Your task to perform on an android device: uninstall "Calculator" Image 0: 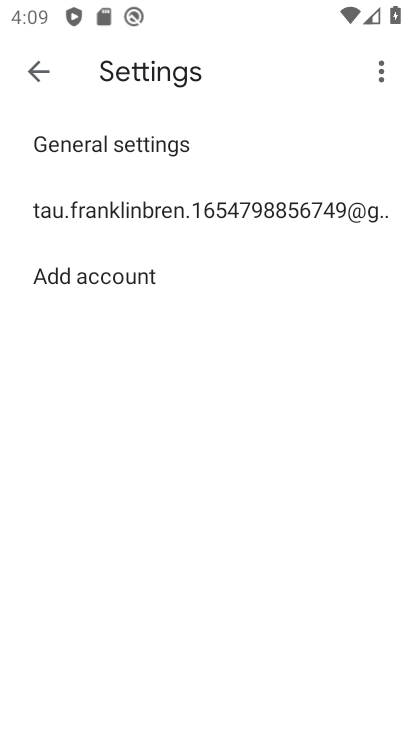
Step 0: press home button
Your task to perform on an android device: uninstall "Calculator" Image 1: 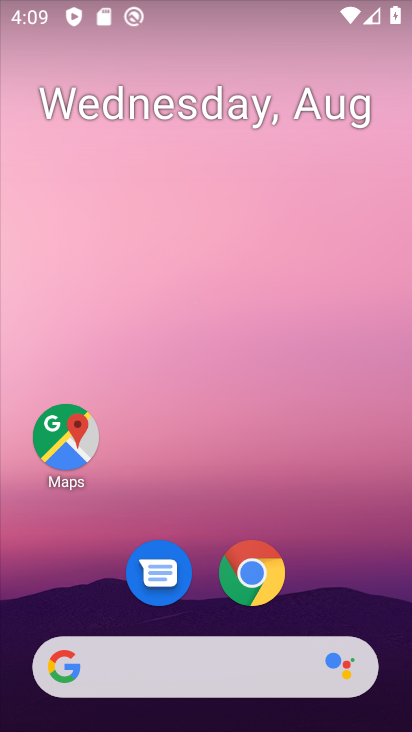
Step 1: drag from (203, 496) to (150, 90)
Your task to perform on an android device: uninstall "Calculator" Image 2: 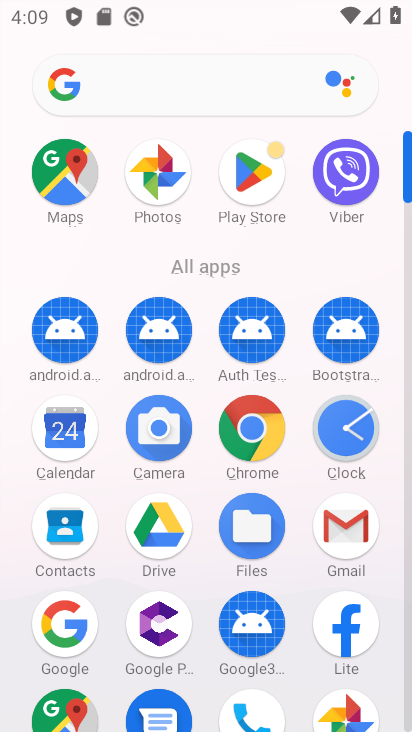
Step 2: click (236, 154)
Your task to perform on an android device: uninstall "Calculator" Image 3: 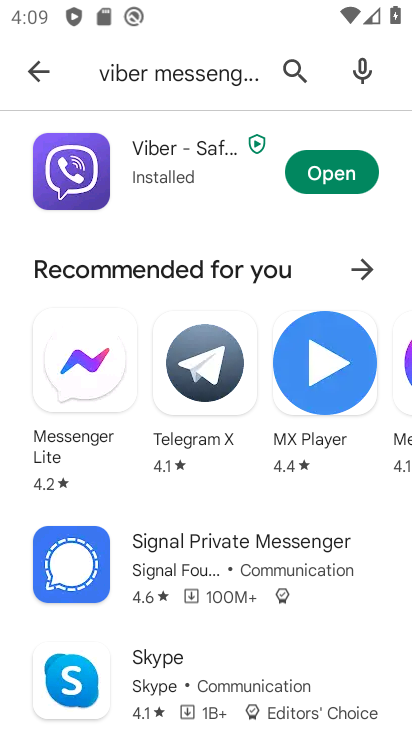
Step 3: click (293, 63)
Your task to perform on an android device: uninstall "Calculator" Image 4: 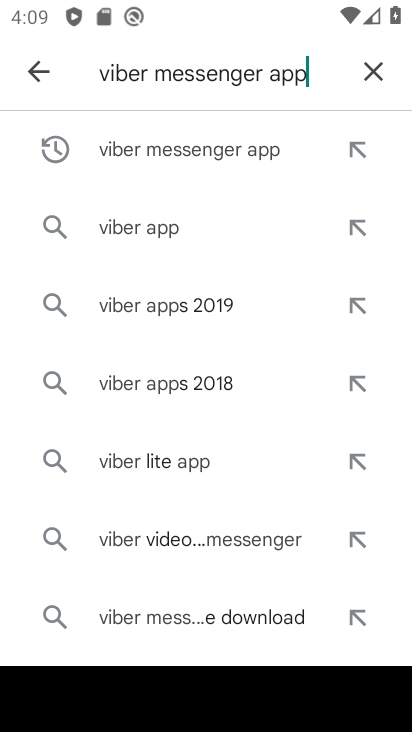
Step 4: click (366, 74)
Your task to perform on an android device: uninstall "Calculator" Image 5: 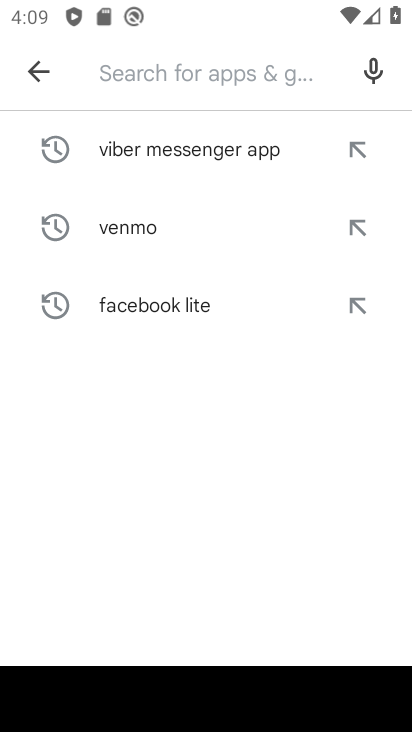
Step 5: type "Calculator"
Your task to perform on an android device: uninstall "Calculator" Image 6: 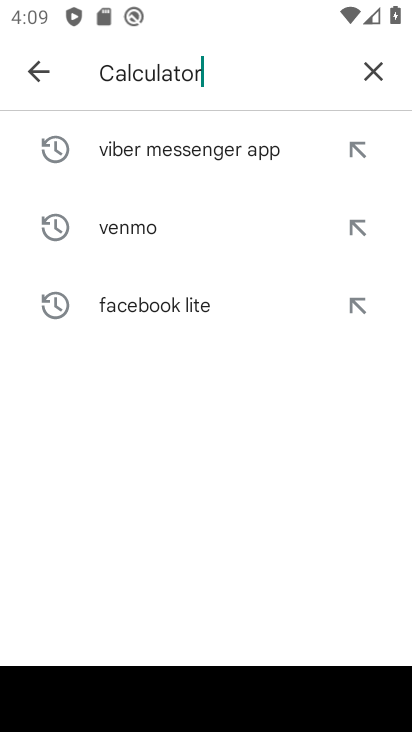
Step 6: type ""
Your task to perform on an android device: uninstall "Calculator" Image 7: 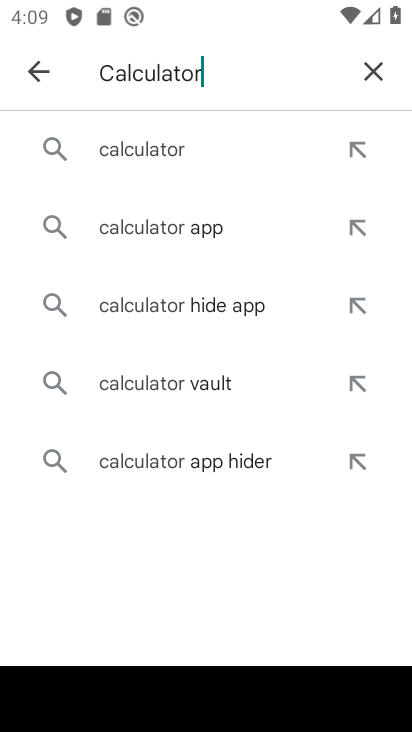
Step 7: click (119, 159)
Your task to perform on an android device: uninstall "Calculator" Image 8: 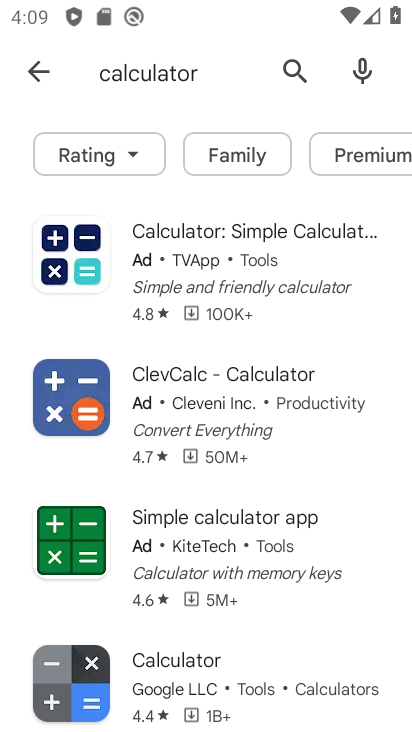
Step 8: click (240, 655)
Your task to perform on an android device: uninstall "Calculator" Image 9: 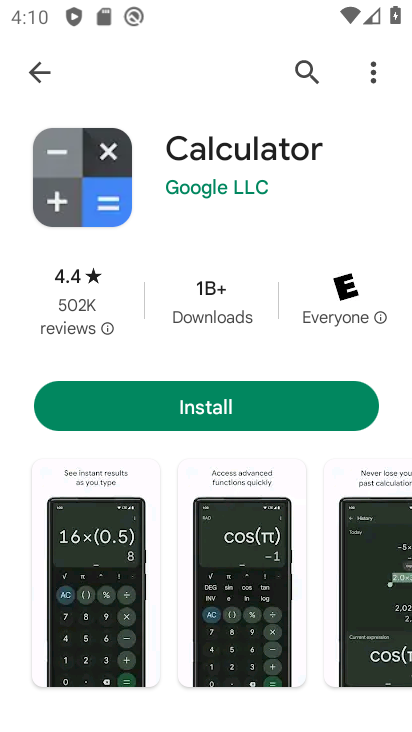
Step 9: task complete